Your task to perform on an android device: set default search engine in the chrome app Image 0: 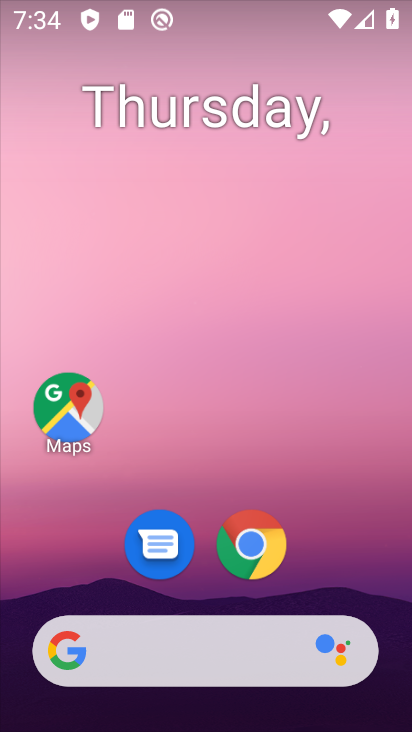
Step 0: click (248, 544)
Your task to perform on an android device: set default search engine in the chrome app Image 1: 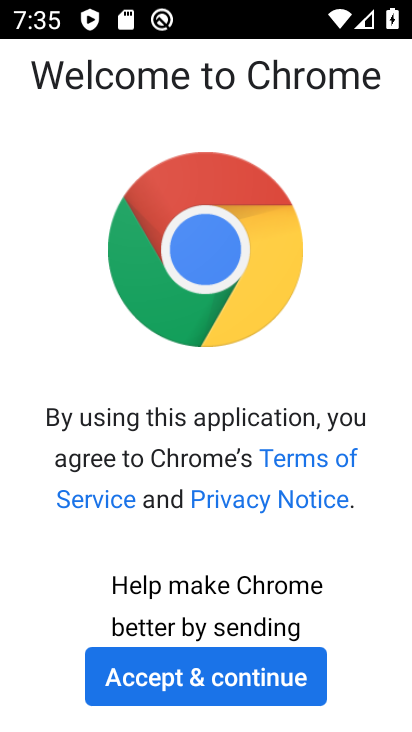
Step 1: click (249, 682)
Your task to perform on an android device: set default search engine in the chrome app Image 2: 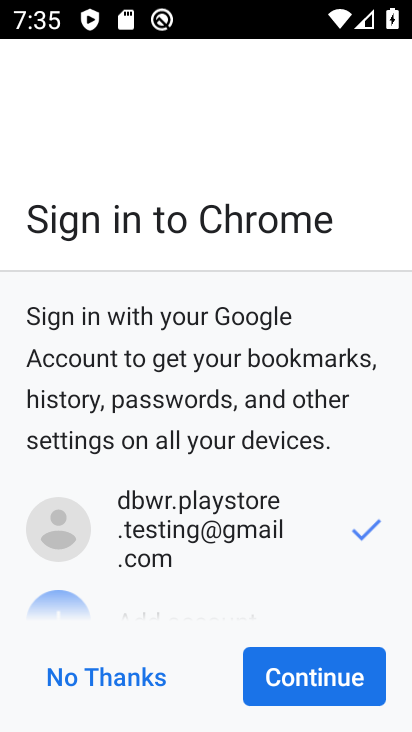
Step 2: click (318, 682)
Your task to perform on an android device: set default search engine in the chrome app Image 3: 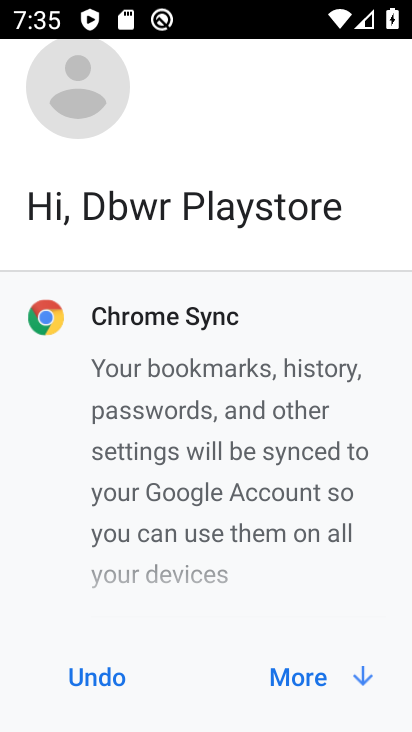
Step 3: click (318, 682)
Your task to perform on an android device: set default search engine in the chrome app Image 4: 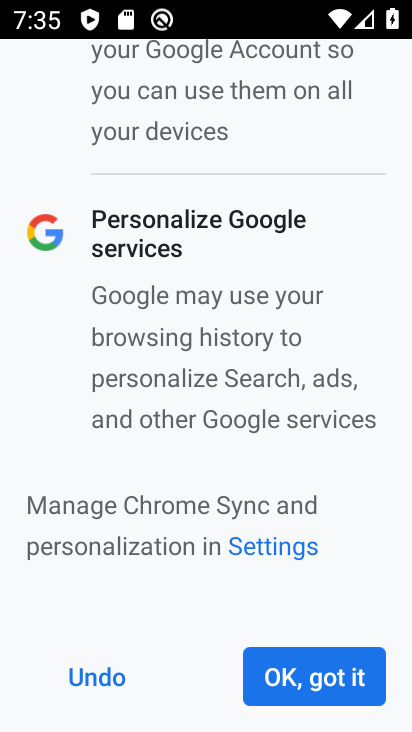
Step 4: click (318, 682)
Your task to perform on an android device: set default search engine in the chrome app Image 5: 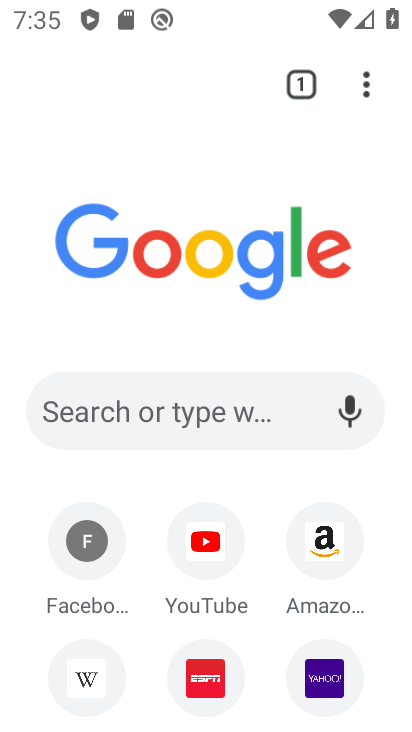
Step 5: click (367, 83)
Your task to perform on an android device: set default search engine in the chrome app Image 6: 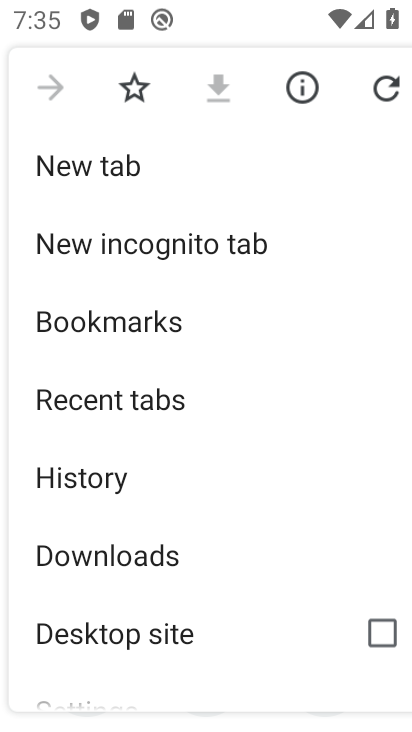
Step 6: drag from (161, 592) to (206, 507)
Your task to perform on an android device: set default search engine in the chrome app Image 7: 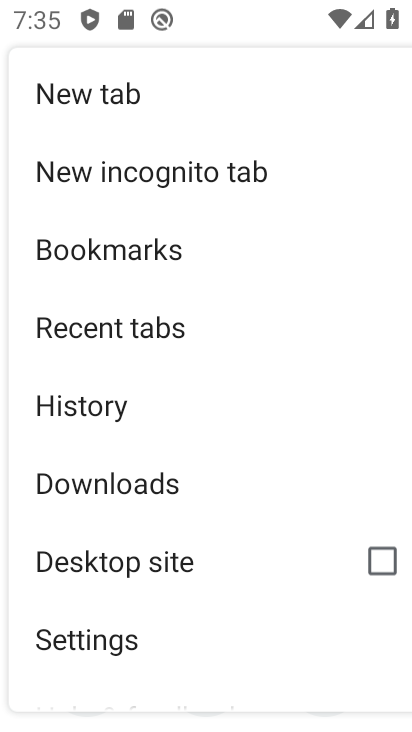
Step 7: drag from (136, 609) to (204, 486)
Your task to perform on an android device: set default search engine in the chrome app Image 8: 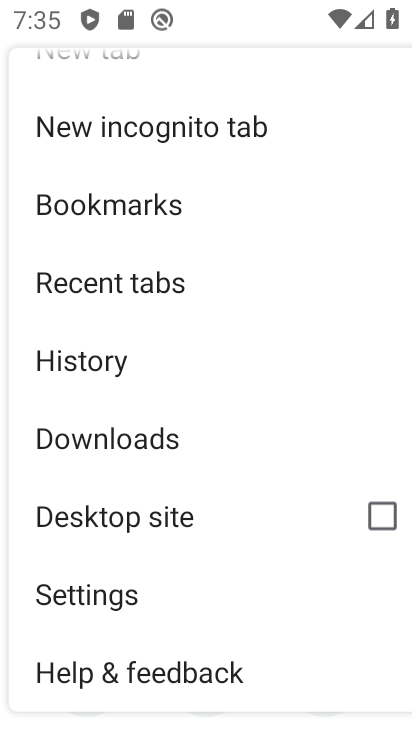
Step 8: click (90, 602)
Your task to perform on an android device: set default search engine in the chrome app Image 9: 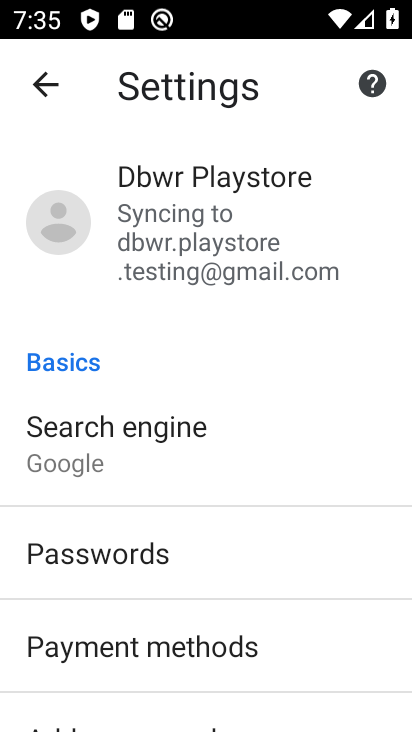
Step 9: click (139, 423)
Your task to perform on an android device: set default search engine in the chrome app Image 10: 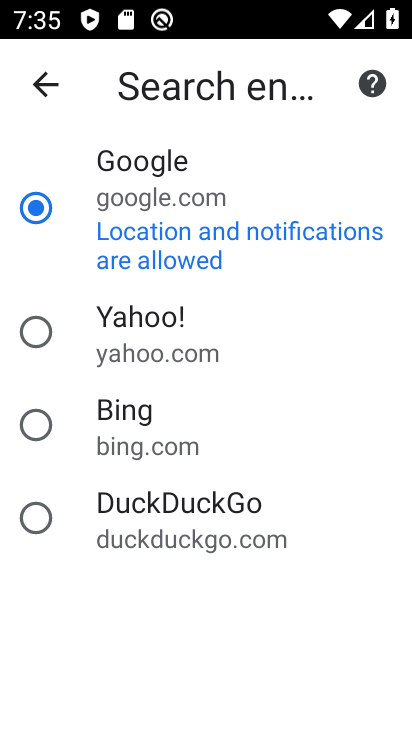
Step 10: click (37, 413)
Your task to perform on an android device: set default search engine in the chrome app Image 11: 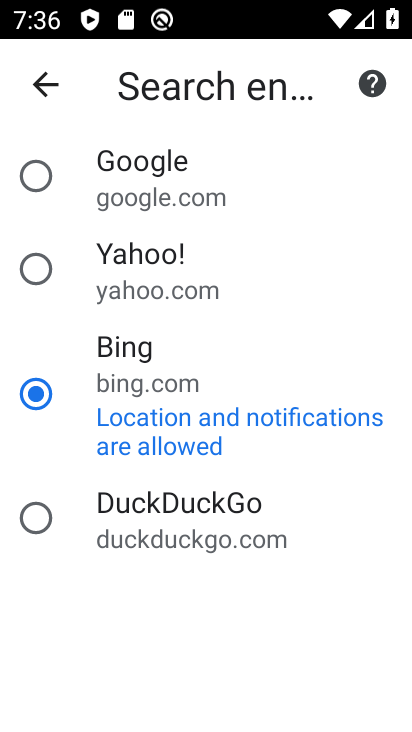
Step 11: task complete